Your task to perform on an android device: delete location history Image 0: 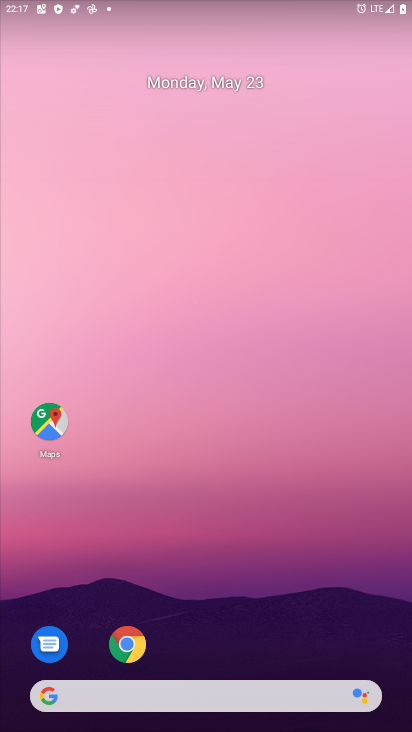
Step 0: click (47, 437)
Your task to perform on an android device: delete location history Image 1: 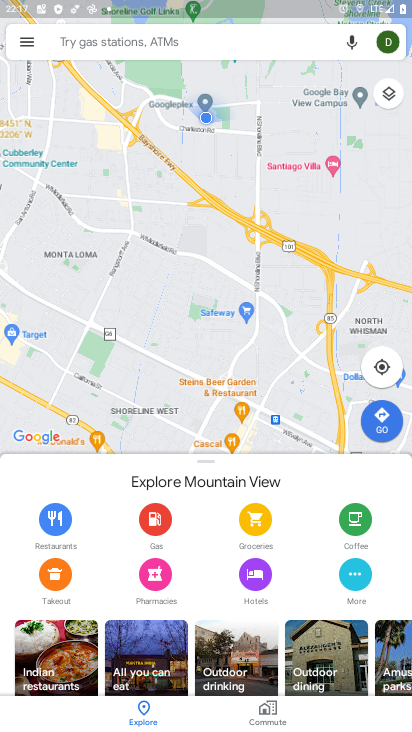
Step 1: click (34, 47)
Your task to perform on an android device: delete location history Image 2: 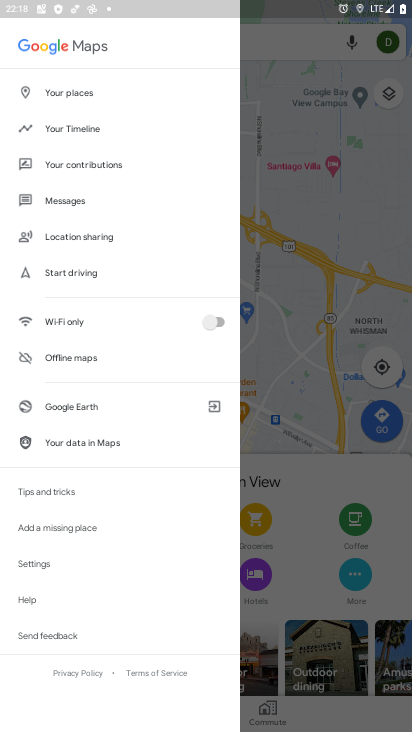
Step 2: click (103, 130)
Your task to perform on an android device: delete location history Image 3: 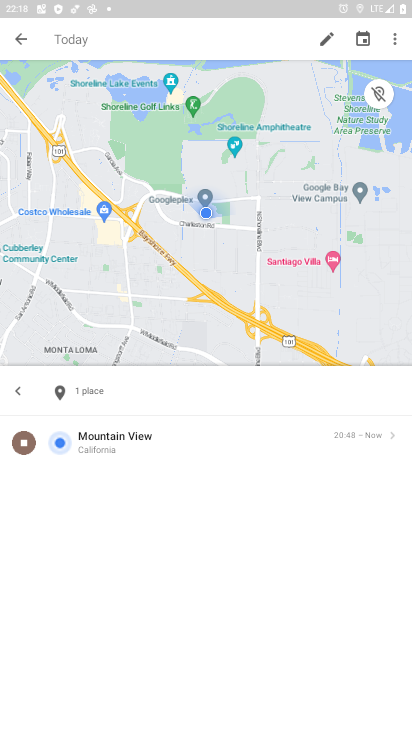
Step 3: click (395, 38)
Your task to perform on an android device: delete location history Image 4: 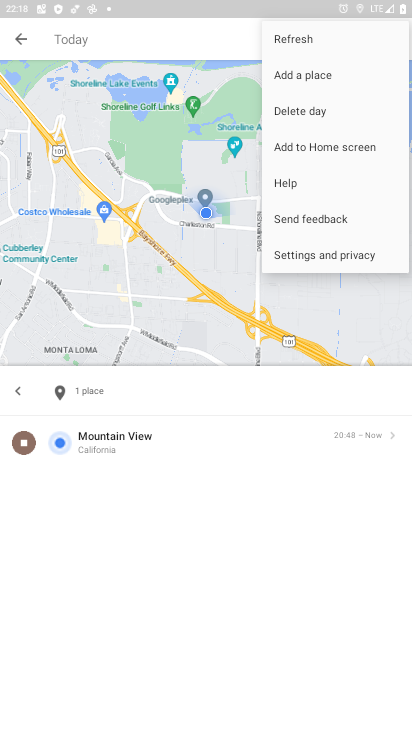
Step 4: click (324, 253)
Your task to perform on an android device: delete location history Image 5: 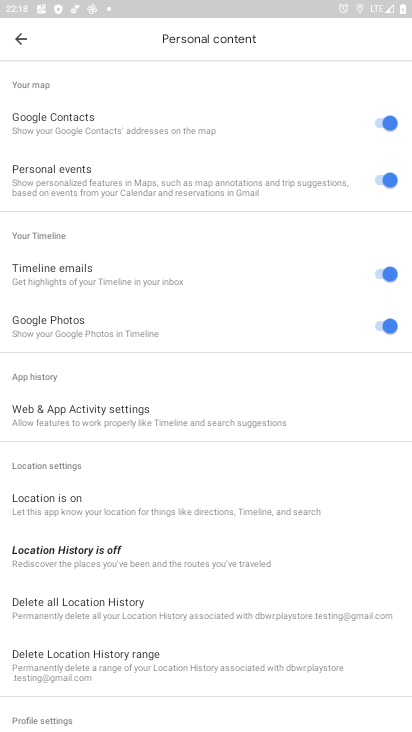
Step 5: click (147, 563)
Your task to perform on an android device: delete location history Image 6: 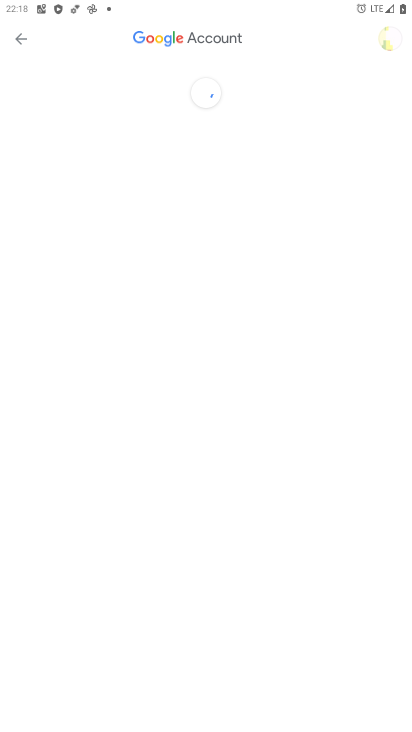
Step 6: click (15, 39)
Your task to perform on an android device: delete location history Image 7: 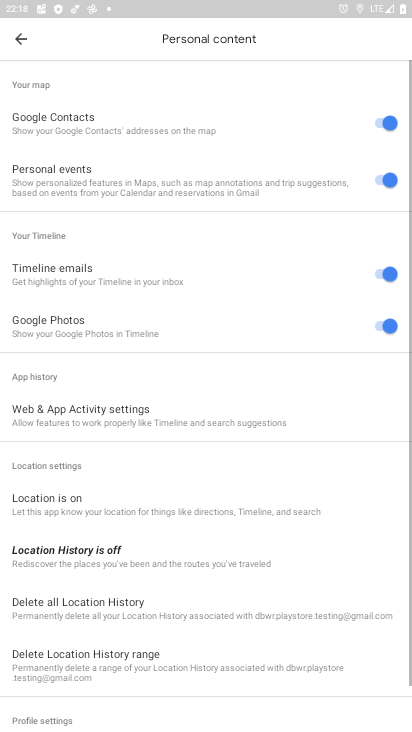
Step 7: click (20, 39)
Your task to perform on an android device: delete location history Image 8: 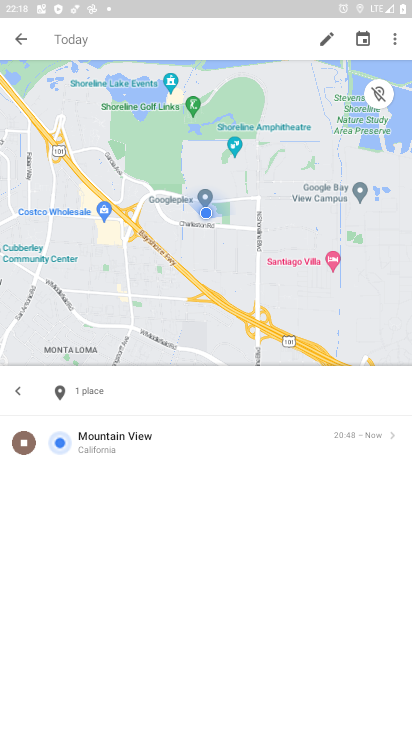
Step 8: click (395, 38)
Your task to perform on an android device: delete location history Image 9: 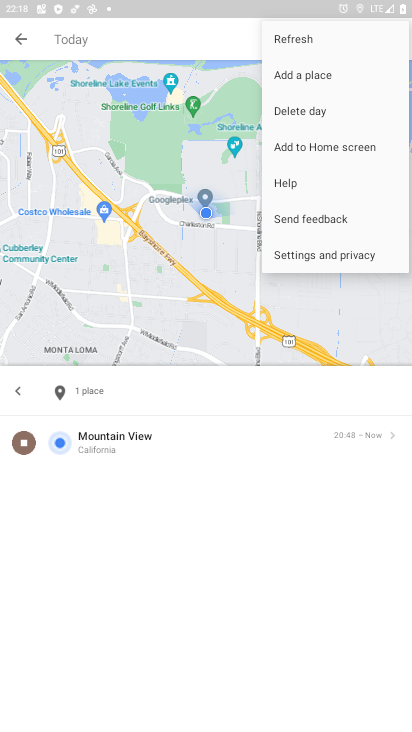
Step 9: click (308, 255)
Your task to perform on an android device: delete location history Image 10: 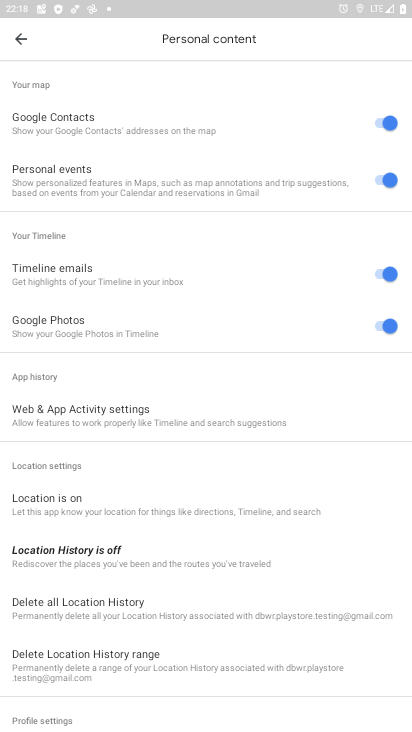
Step 10: click (127, 605)
Your task to perform on an android device: delete location history Image 11: 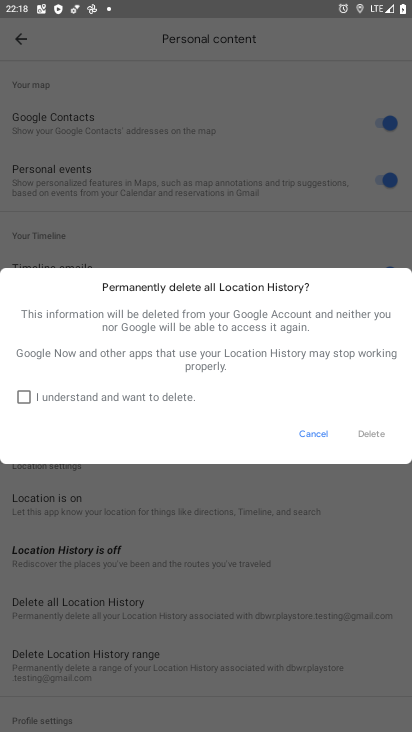
Step 11: click (33, 395)
Your task to perform on an android device: delete location history Image 12: 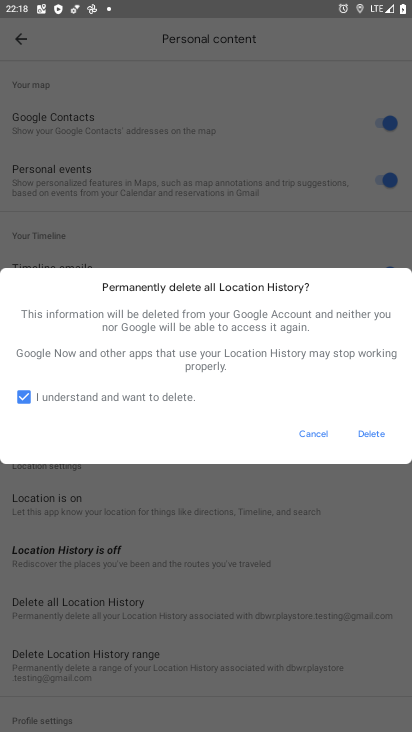
Step 12: click (360, 434)
Your task to perform on an android device: delete location history Image 13: 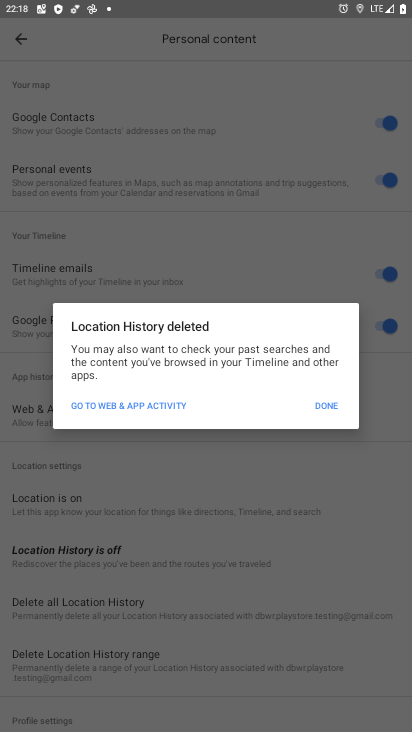
Step 13: task complete